Your task to perform on an android device: toggle priority inbox in the gmail app Image 0: 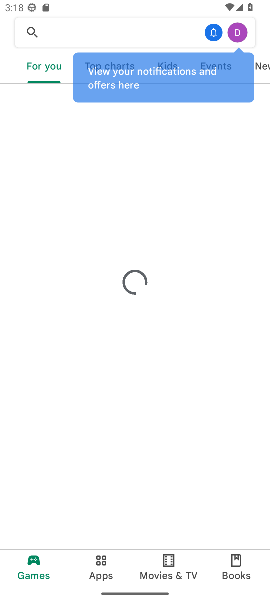
Step 0: press home button
Your task to perform on an android device: toggle priority inbox in the gmail app Image 1: 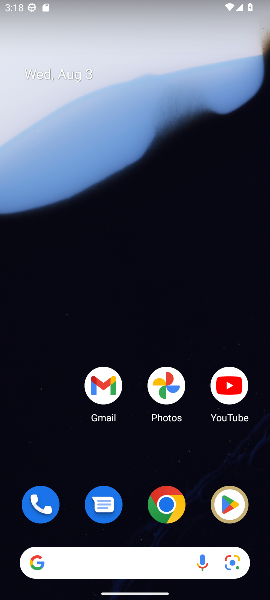
Step 1: drag from (130, 473) to (184, 0)
Your task to perform on an android device: toggle priority inbox in the gmail app Image 2: 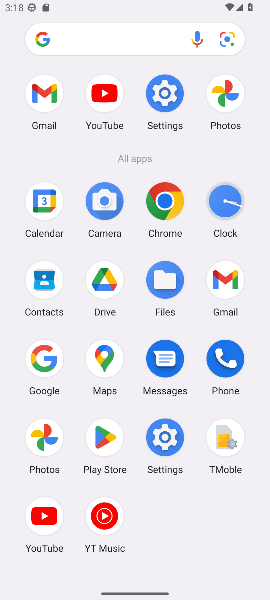
Step 2: click (231, 281)
Your task to perform on an android device: toggle priority inbox in the gmail app Image 3: 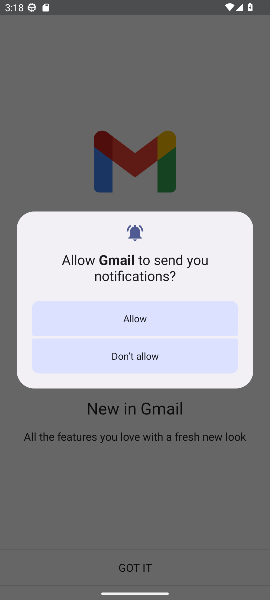
Step 3: click (157, 319)
Your task to perform on an android device: toggle priority inbox in the gmail app Image 4: 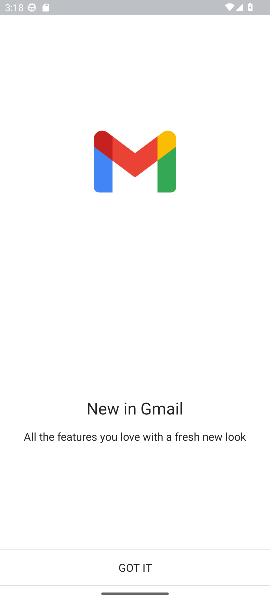
Step 4: click (159, 568)
Your task to perform on an android device: toggle priority inbox in the gmail app Image 5: 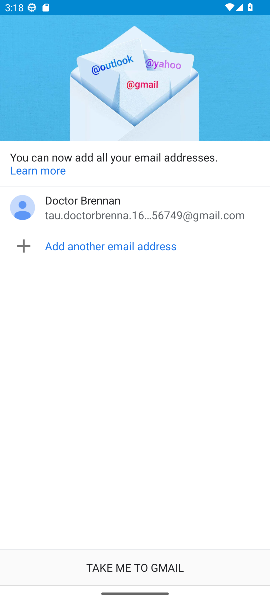
Step 5: click (159, 568)
Your task to perform on an android device: toggle priority inbox in the gmail app Image 6: 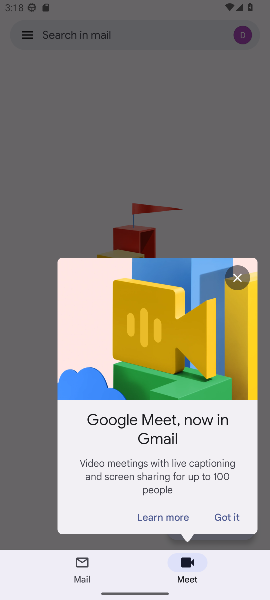
Step 6: click (233, 279)
Your task to perform on an android device: toggle priority inbox in the gmail app Image 7: 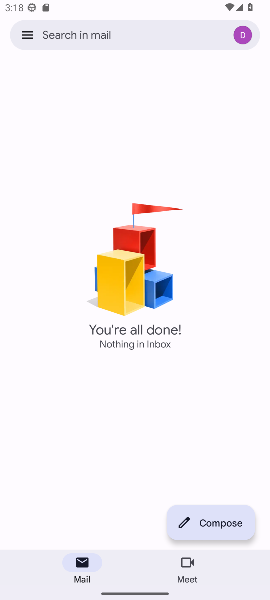
Step 7: click (26, 39)
Your task to perform on an android device: toggle priority inbox in the gmail app Image 8: 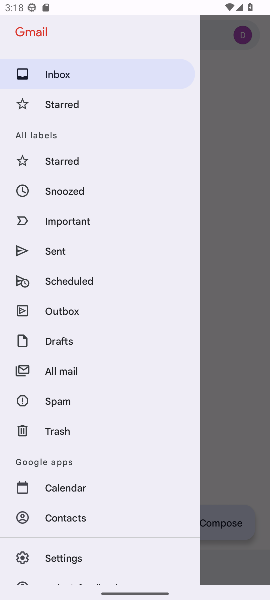
Step 8: drag from (56, 532) to (64, 383)
Your task to perform on an android device: toggle priority inbox in the gmail app Image 9: 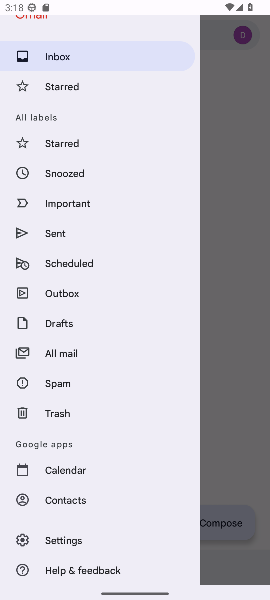
Step 9: click (62, 533)
Your task to perform on an android device: toggle priority inbox in the gmail app Image 10: 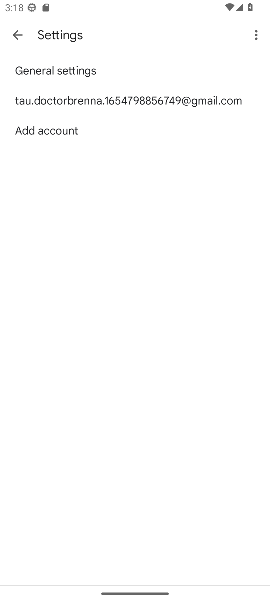
Step 10: click (81, 96)
Your task to perform on an android device: toggle priority inbox in the gmail app Image 11: 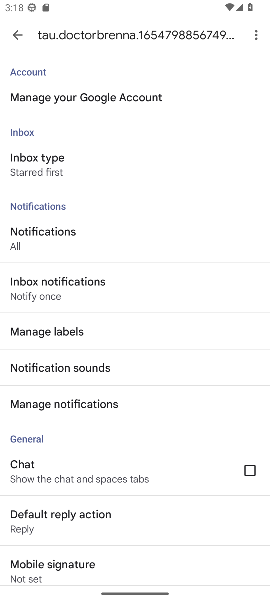
Step 11: click (59, 166)
Your task to perform on an android device: toggle priority inbox in the gmail app Image 12: 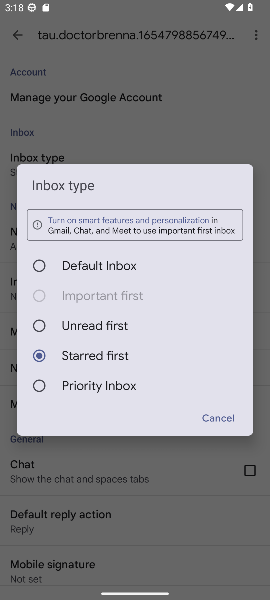
Step 12: click (97, 383)
Your task to perform on an android device: toggle priority inbox in the gmail app Image 13: 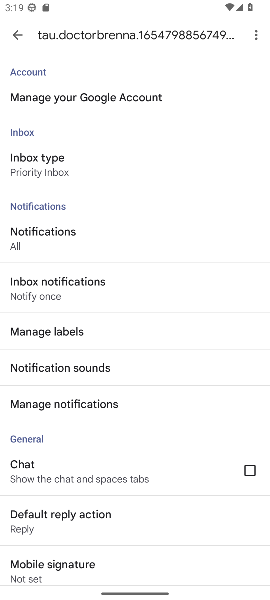
Step 13: task complete